Your task to perform on an android device: Do I have any events this weekend? Image 0: 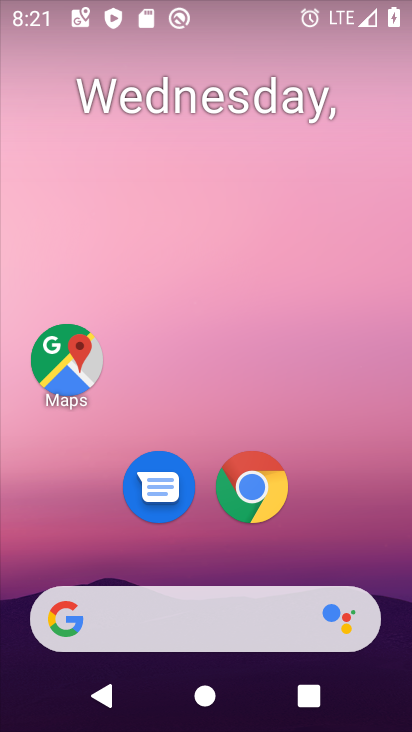
Step 0: drag from (363, 575) to (315, 40)
Your task to perform on an android device: Do I have any events this weekend? Image 1: 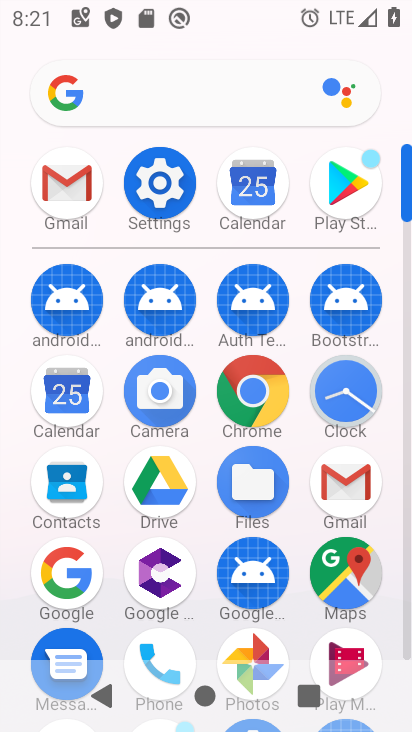
Step 1: click (240, 192)
Your task to perform on an android device: Do I have any events this weekend? Image 2: 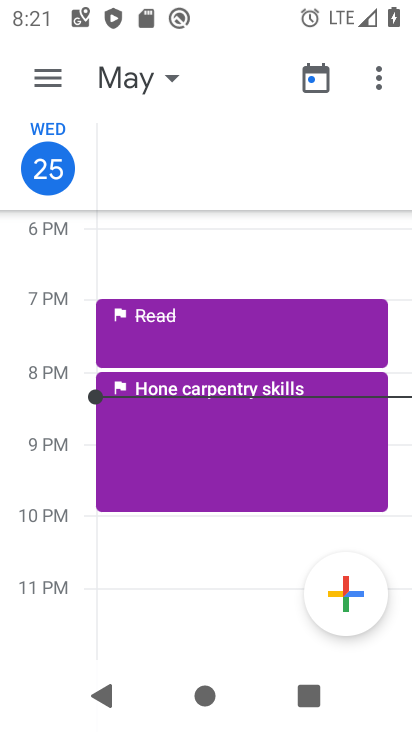
Step 2: click (46, 71)
Your task to perform on an android device: Do I have any events this weekend? Image 3: 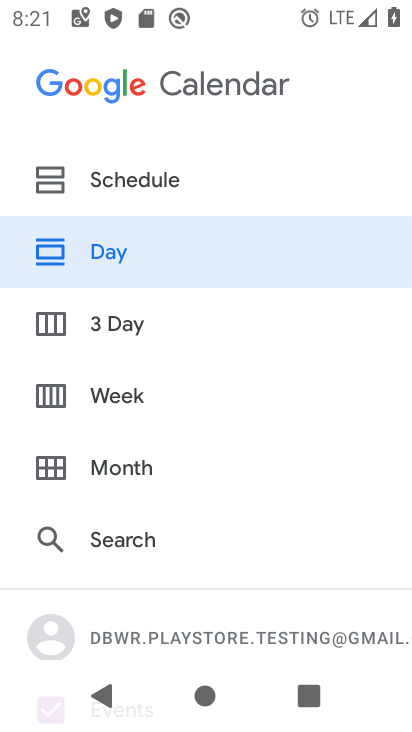
Step 3: click (96, 394)
Your task to perform on an android device: Do I have any events this weekend? Image 4: 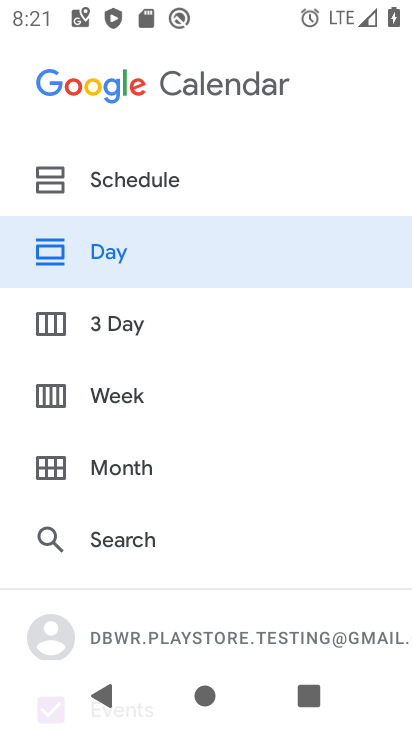
Step 4: click (90, 243)
Your task to perform on an android device: Do I have any events this weekend? Image 5: 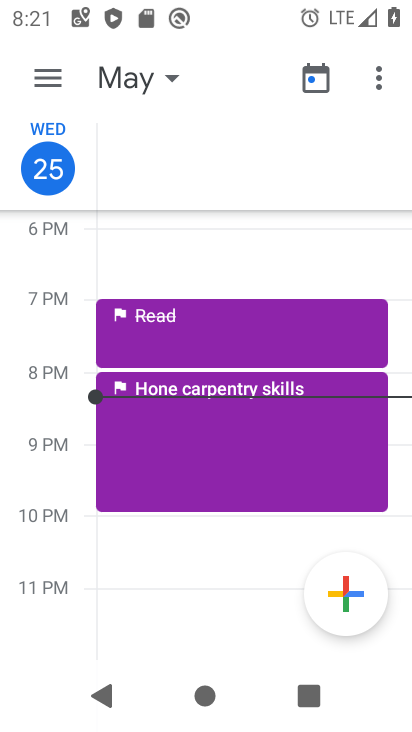
Step 5: click (175, 80)
Your task to perform on an android device: Do I have any events this weekend? Image 6: 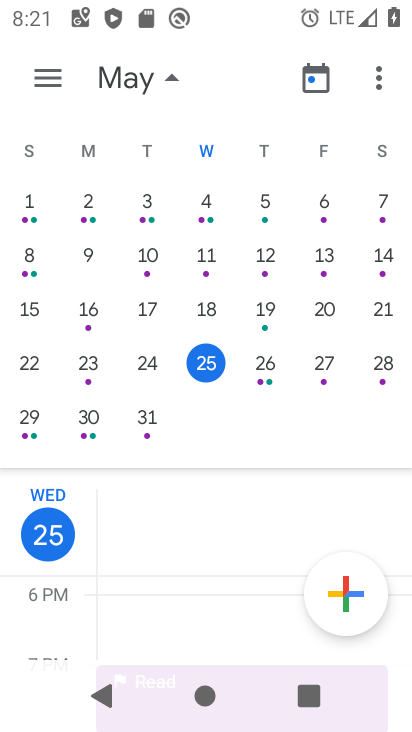
Step 6: click (378, 371)
Your task to perform on an android device: Do I have any events this weekend? Image 7: 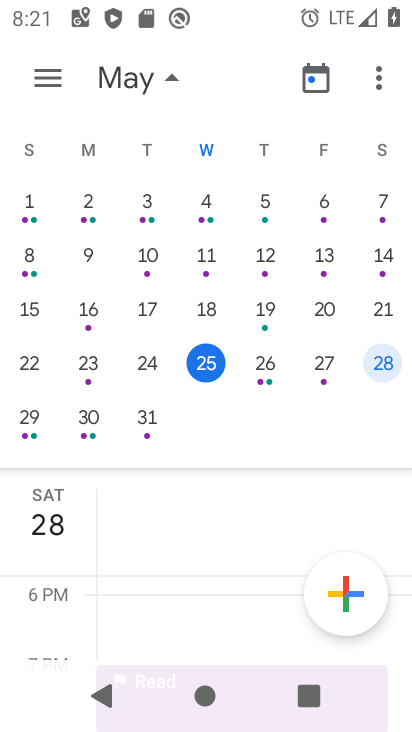
Step 7: drag from (234, 501) to (189, 138)
Your task to perform on an android device: Do I have any events this weekend? Image 8: 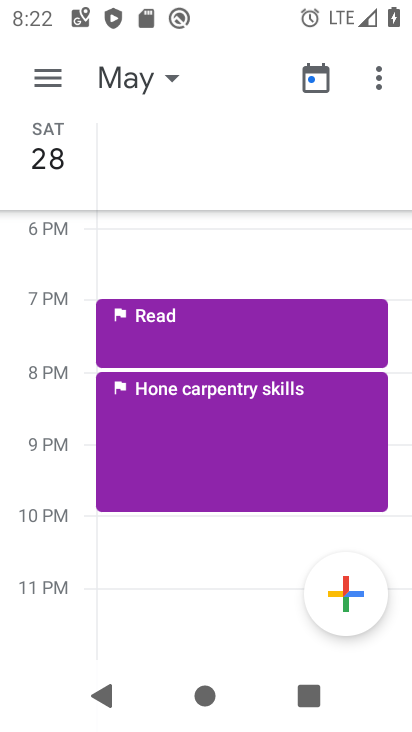
Step 8: drag from (175, 457) to (175, 185)
Your task to perform on an android device: Do I have any events this weekend? Image 9: 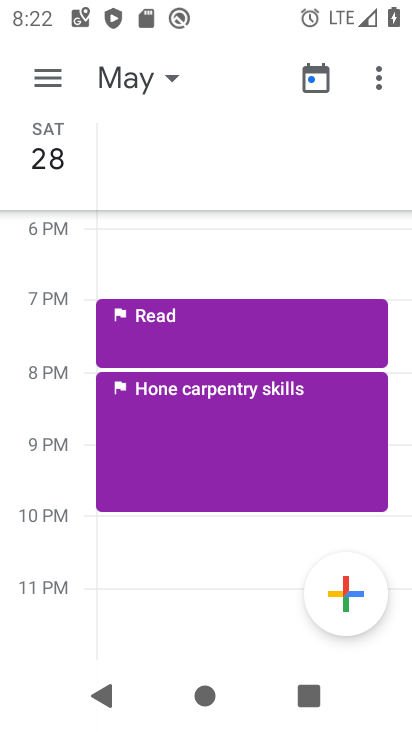
Step 9: click (194, 342)
Your task to perform on an android device: Do I have any events this weekend? Image 10: 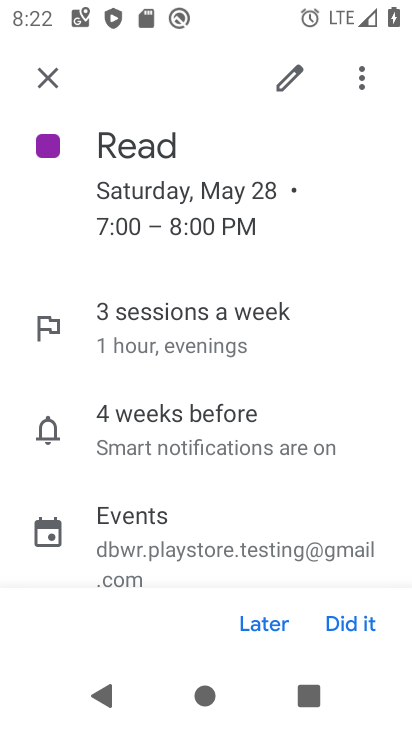
Step 10: task complete